Your task to perform on an android device: change your default location settings in chrome Image 0: 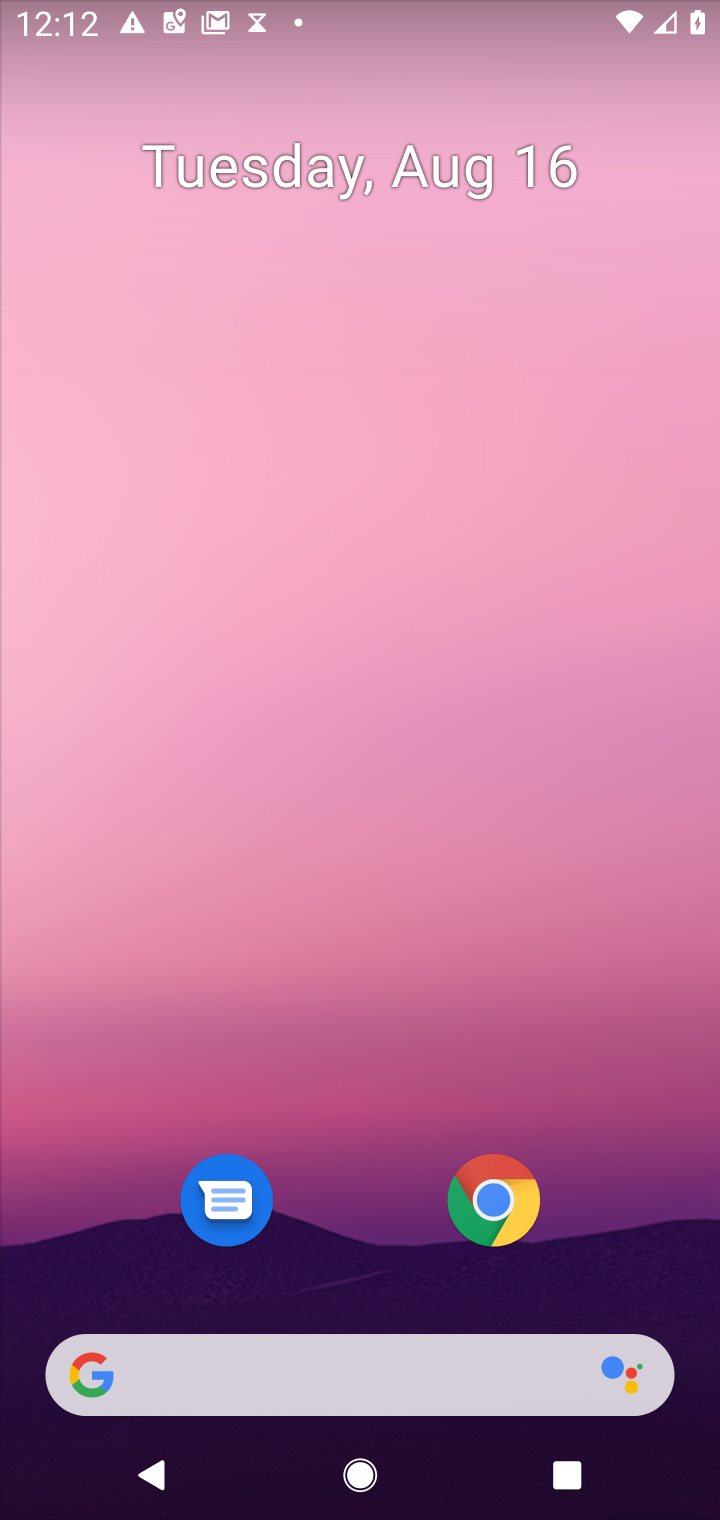
Step 0: click (509, 1234)
Your task to perform on an android device: change your default location settings in chrome Image 1: 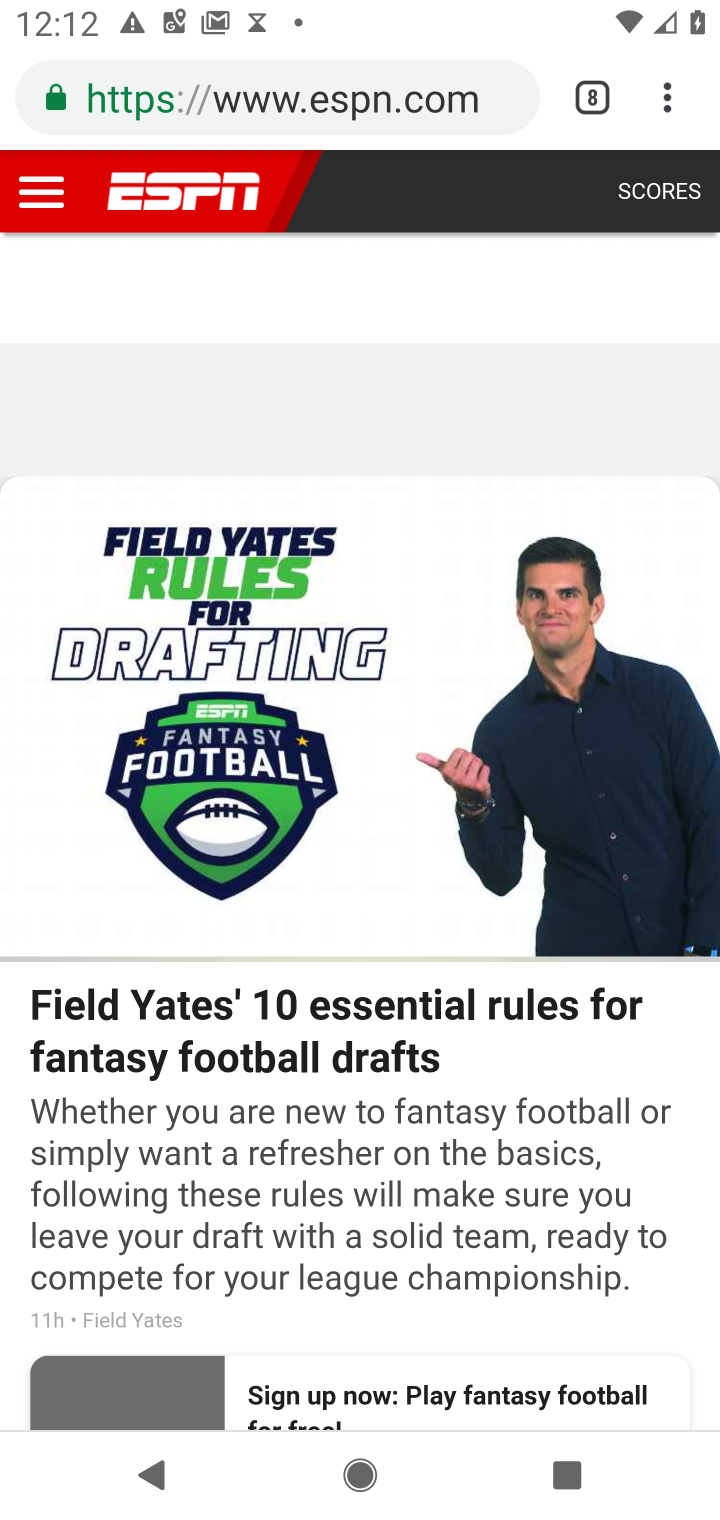
Step 1: click (665, 103)
Your task to perform on an android device: change your default location settings in chrome Image 2: 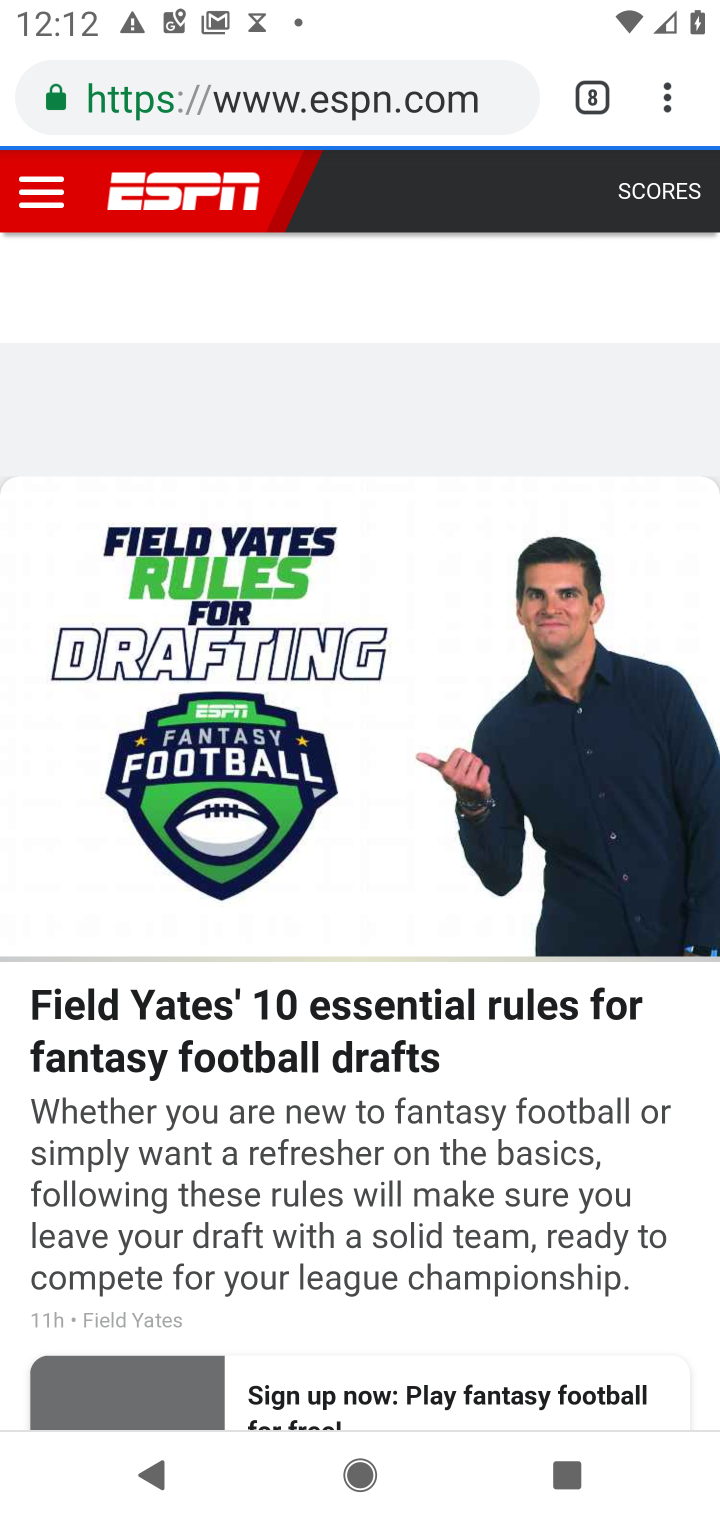
Step 2: click (665, 96)
Your task to perform on an android device: change your default location settings in chrome Image 3: 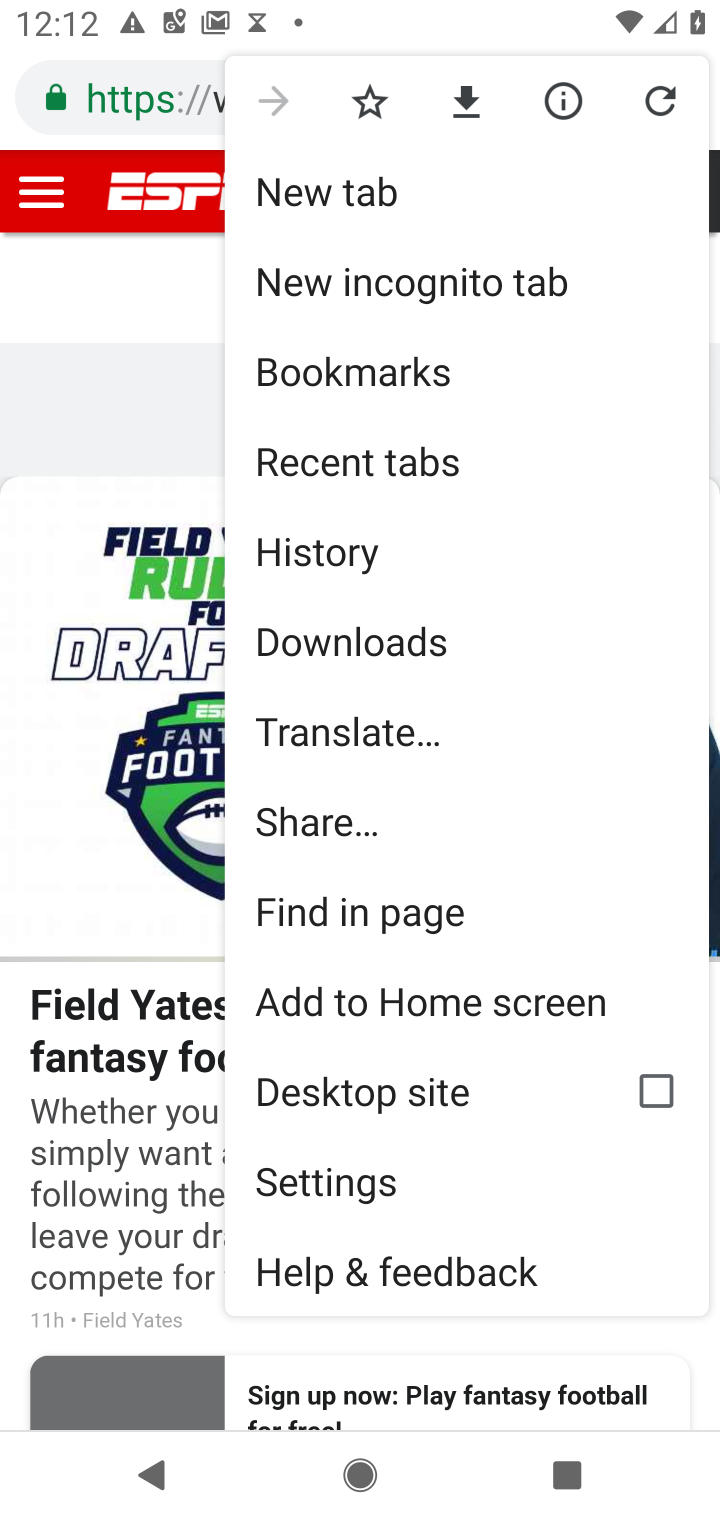
Step 3: click (385, 1186)
Your task to perform on an android device: change your default location settings in chrome Image 4: 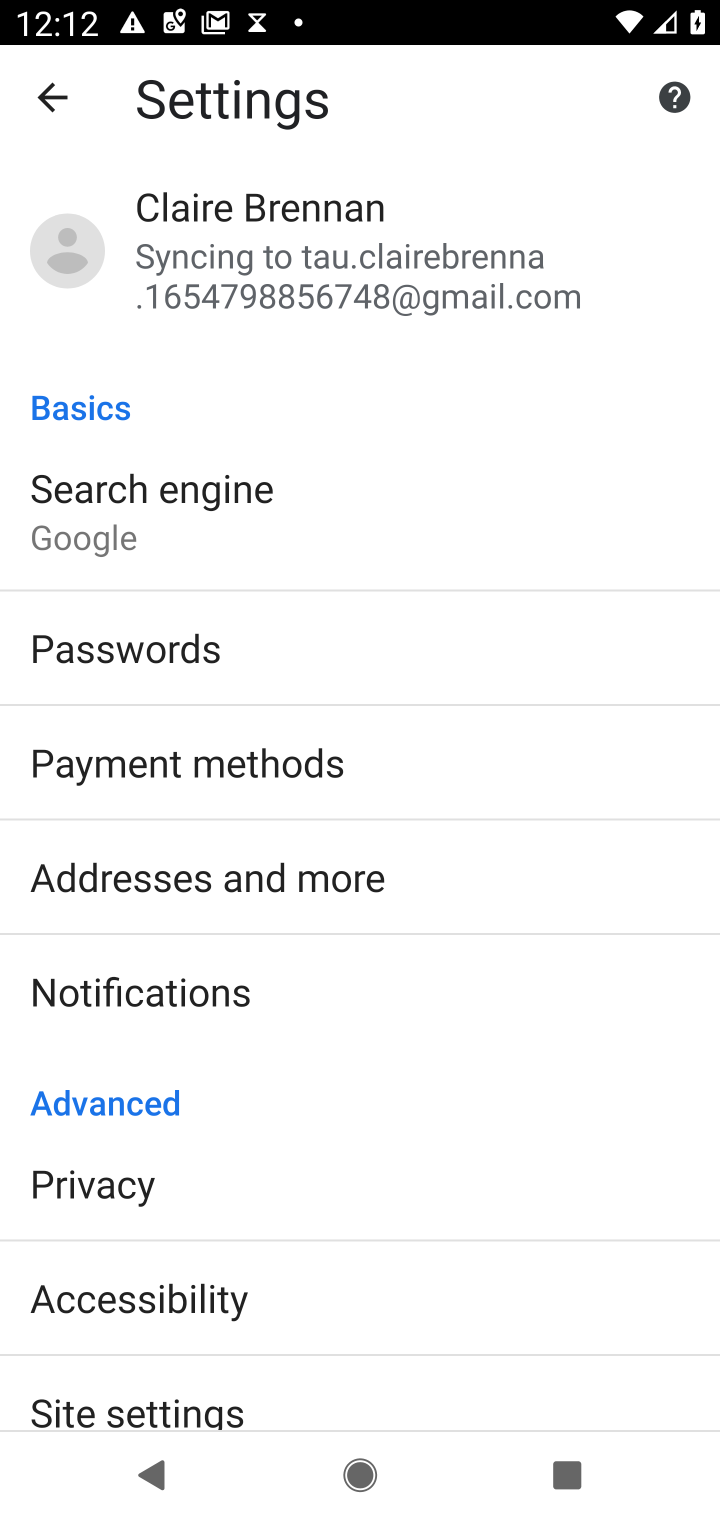
Step 4: click (338, 1376)
Your task to perform on an android device: change your default location settings in chrome Image 5: 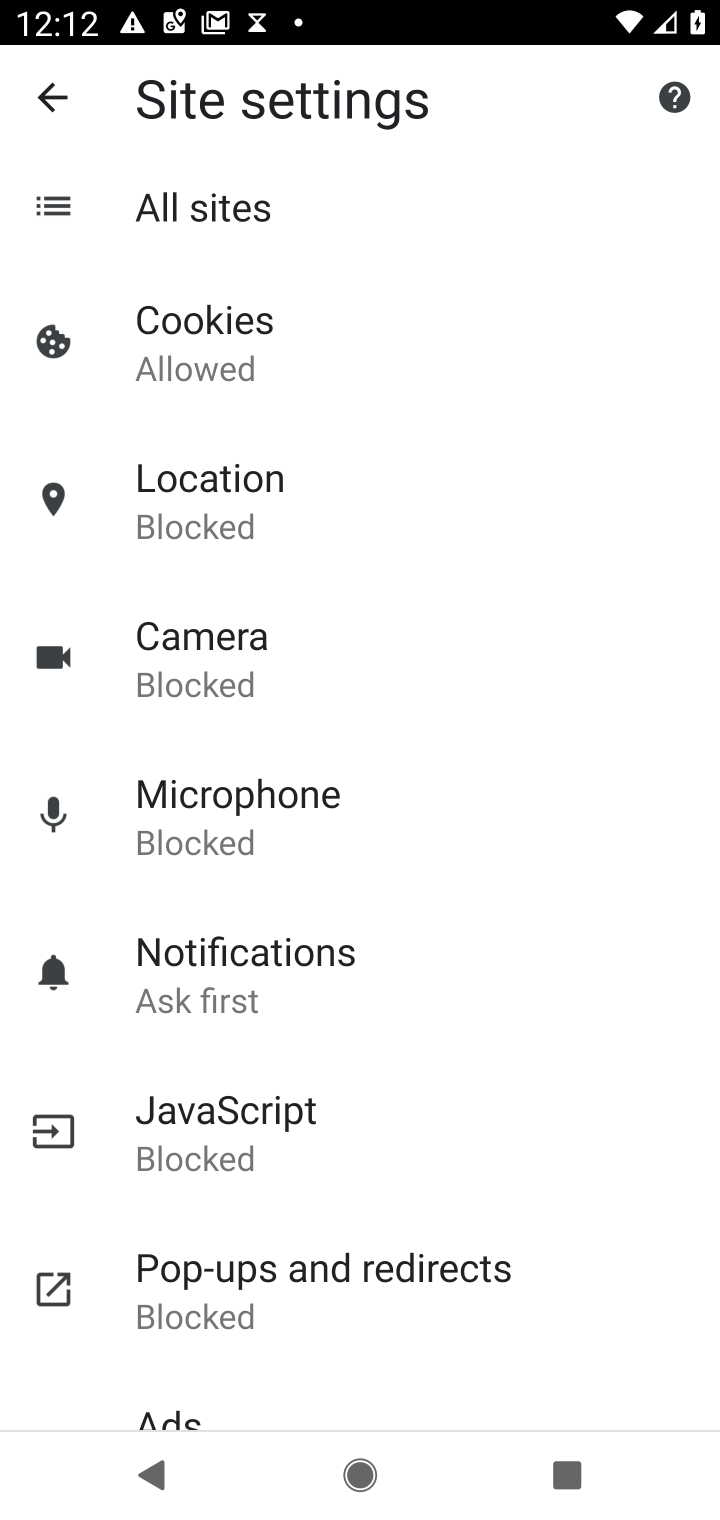
Step 5: click (261, 493)
Your task to perform on an android device: change your default location settings in chrome Image 6: 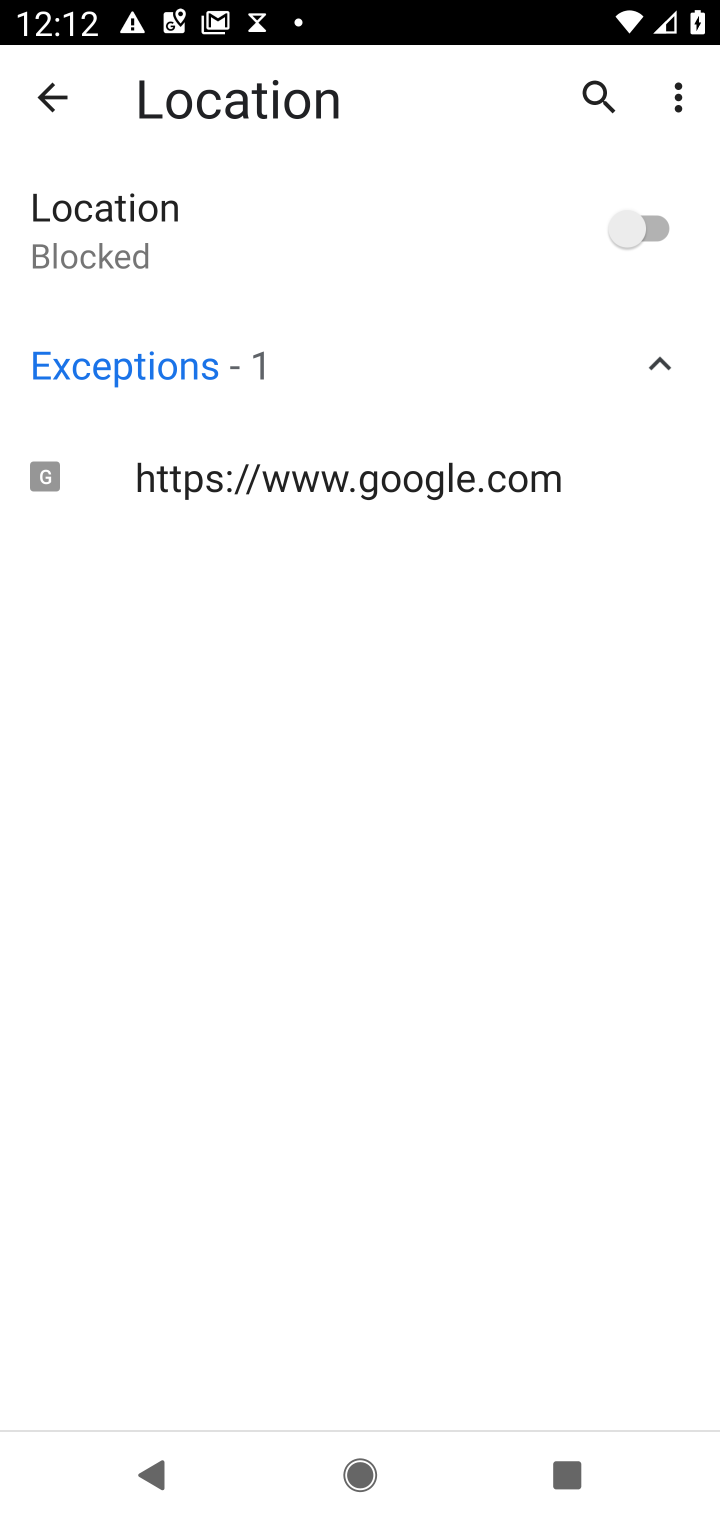
Step 6: click (662, 230)
Your task to perform on an android device: change your default location settings in chrome Image 7: 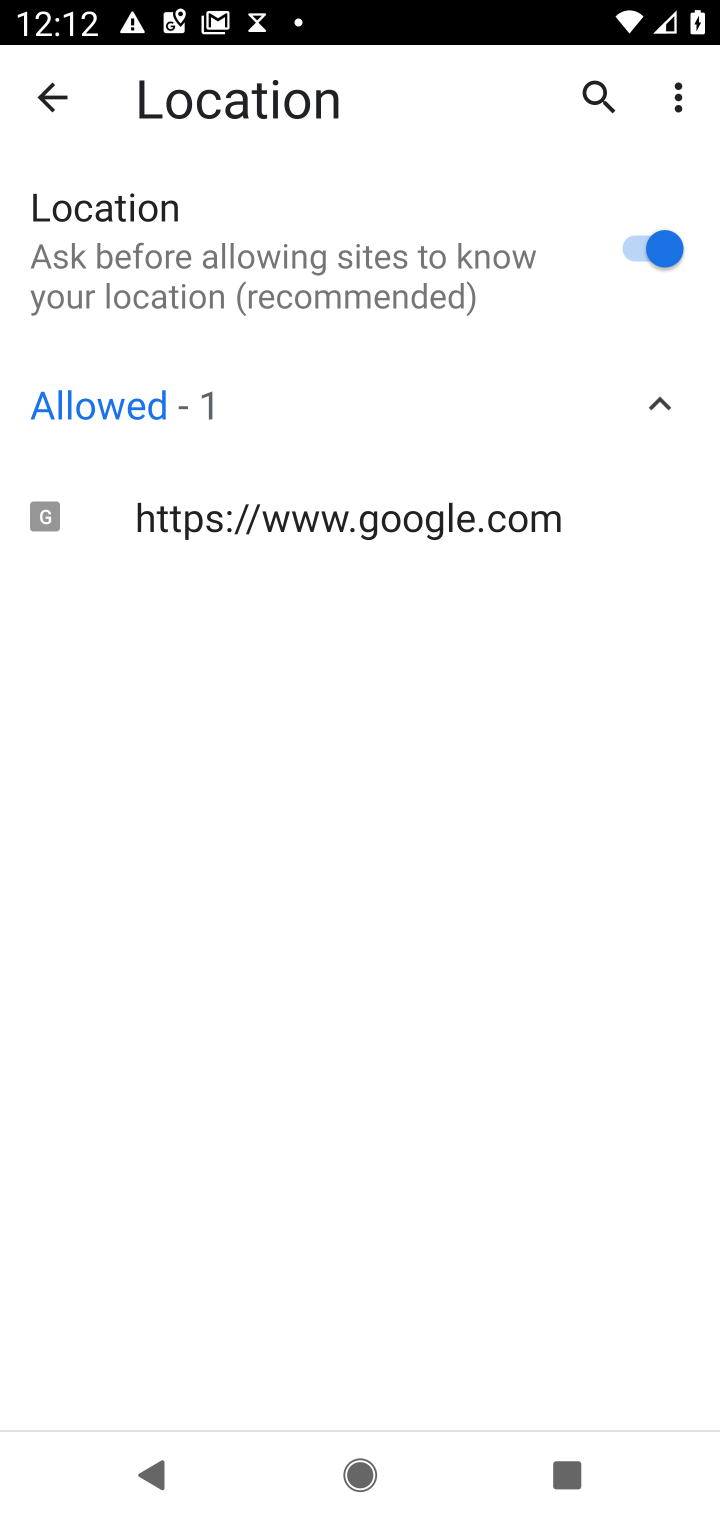
Step 7: task complete